Your task to perform on an android device: View the shopping cart on bestbuy. Search for "razer blackwidow" on bestbuy, select the first entry, add it to the cart, then select checkout. Image 0: 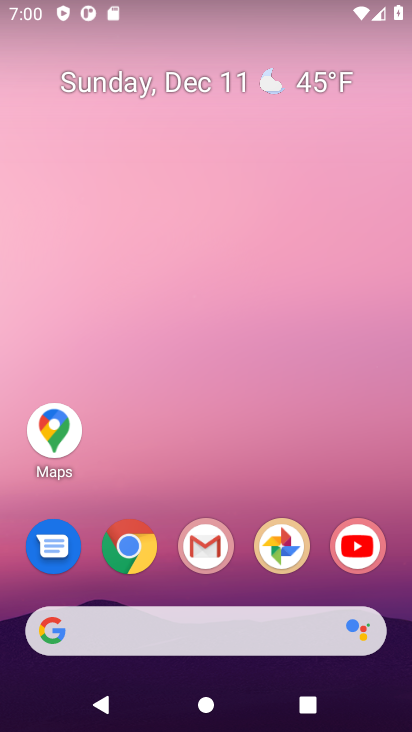
Step 0: click (132, 551)
Your task to perform on an android device: View the shopping cart on bestbuy. Search for "razer blackwidow" on bestbuy, select the first entry, add it to the cart, then select checkout. Image 1: 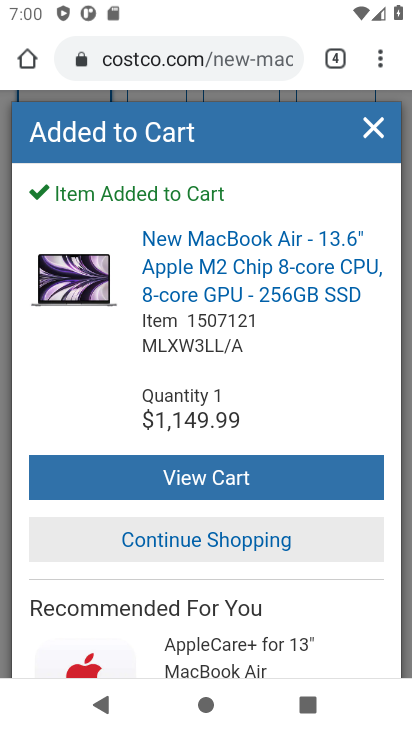
Step 1: click (174, 62)
Your task to perform on an android device: View the shopping cart on bestbuy. Search for "razer blackwidow" on bestbuy, select the first entry, add it to the cart, then select checkout. Image 2: 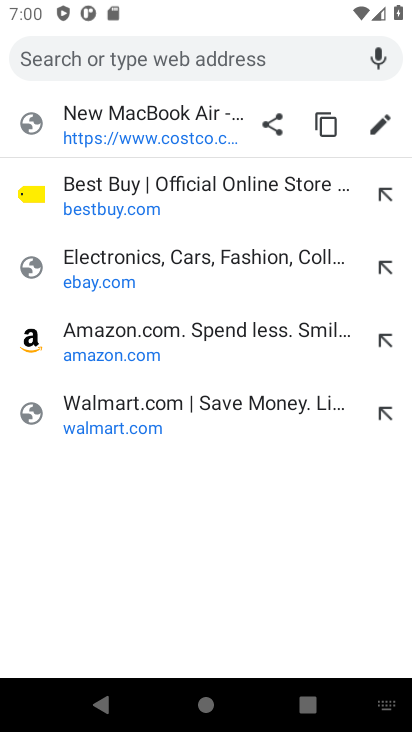
Step 2: click (90, 202)
Your task to perform on an android device: View the shopping cart on bestbuy. Search for "razer blackwidow" on bestbuy, select the first entry, add it to the cart, then select checkout. Image 3: 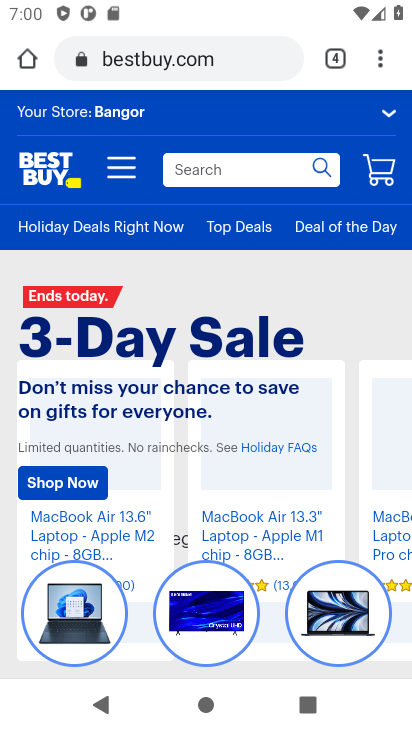
Step 3: click (373, 178)
Your task to perform on an android device: View the shopping cart on bestbuy. Search for "razer blackwidow" on bestbuy, select the first entry, add it to the cart, then select checkout. Image 4: 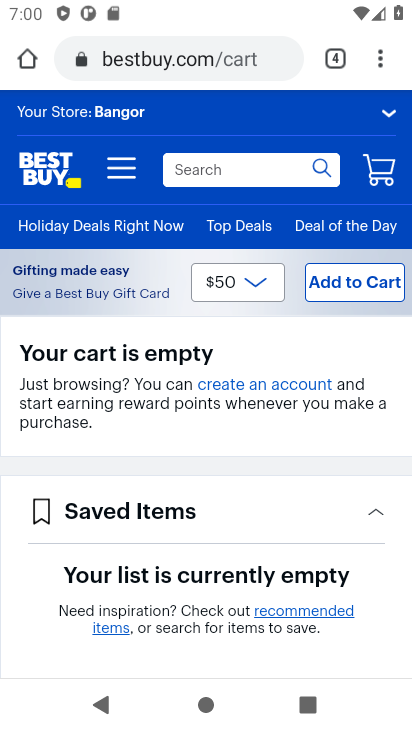
Step 4: click (205, 171)
Your task to perform on an android device: View the shopping cart on bestbuy. Search for "razer blackwidow" on bestbuy, select the first entry, add it to the cart, then select checkout. Image 5: 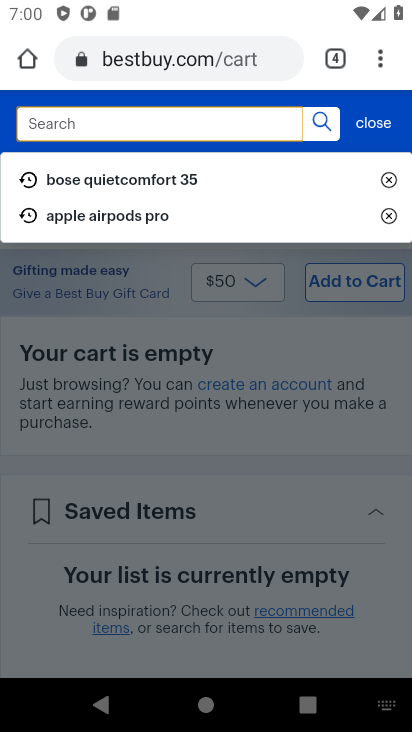
Step 5: type "razer blackwidow"
Your task to perform on an android device: View the shopping cart on bestbuy. Search for "razer blackwidow" on bestbuy, select the first entry, add it to the cart, then select checkout. Image 6: 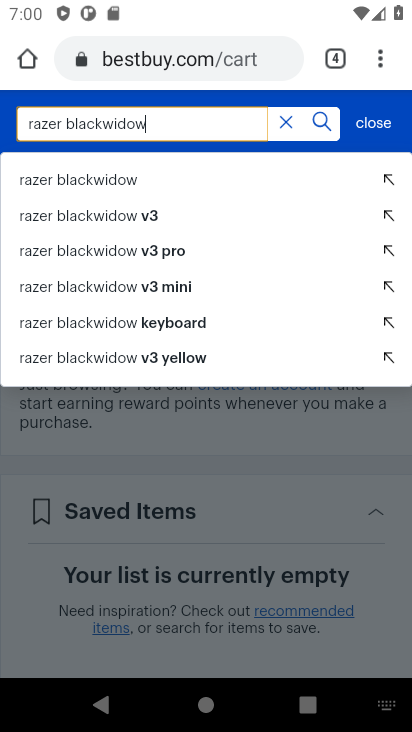
Step 6: click (87, 181)
Your task to perform on an android device: View the shopping cart on bestbuy. Search for "razer blackwidow" on bestbuy, select the first entry, add it to the cart, then select checkout. Image 7: 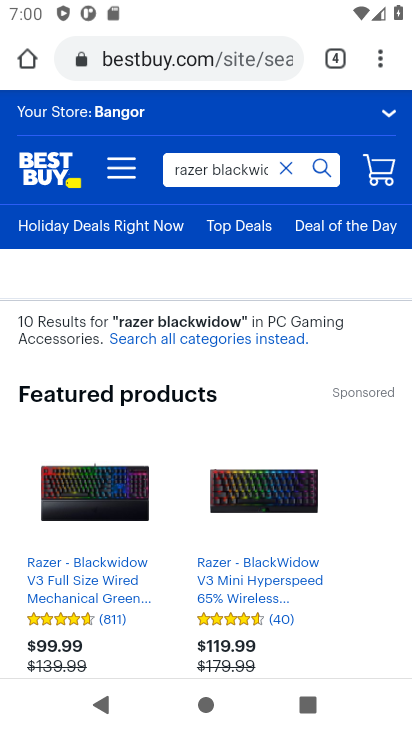
Step 7: drag from (353, 534) to (356, 201)
Your task to perform on an android device: View the shopping cart on bestbuy. Search for "razer blackwidow" on bestbuy, select the first entry, add it to the cart, then select checkout. Image 8: 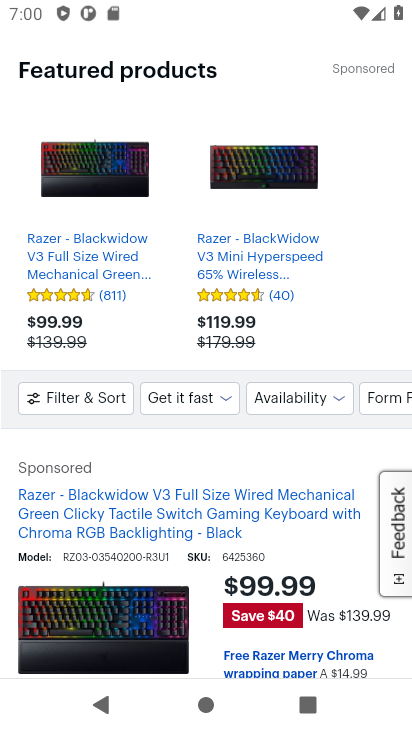
Step 8: drag from (330, 525) to (314, 210)
Your task to perform on an android device: View the shopping cart on bestbuy. Search for "razer blackwidow" on bestbuy, select the first entry, add it to the cart, then select checkout. Image 9: 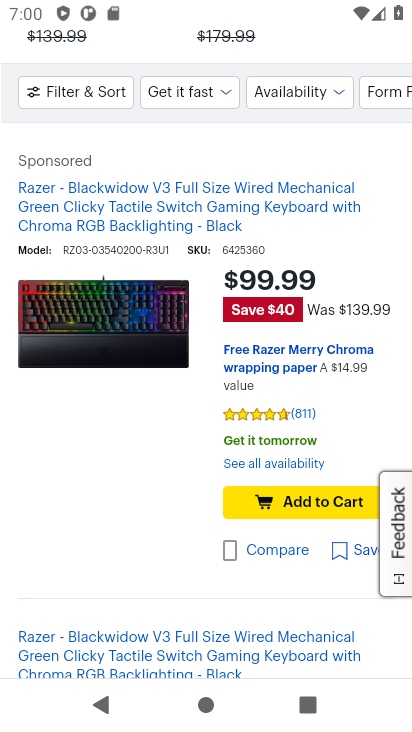
Step 9: click (304, 497)
Your task to perform on an android device: View the shopping cart on bestbuy. Search for "razer blackwidow" on bestbuy, select the first entry, add it to the cart, then select checkout. Image 10: 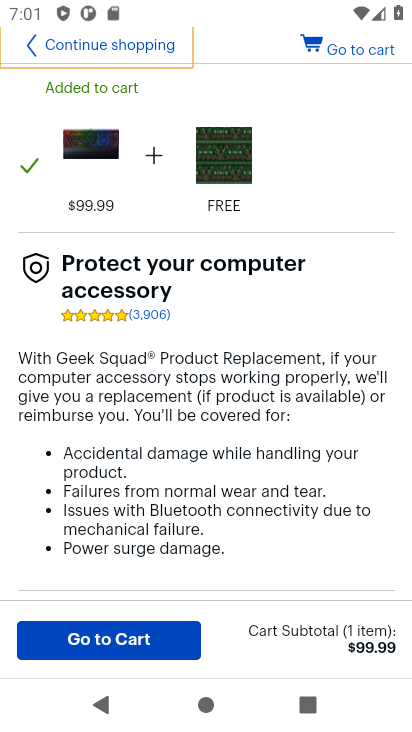
Step 10: click (351, 54)
Your task to perform on an android device: View the shopping cart on bestbuy. Search for "razer blackwidow" on bestbuy, select the first entry, add it to the cart, then select checkout. Image 11: 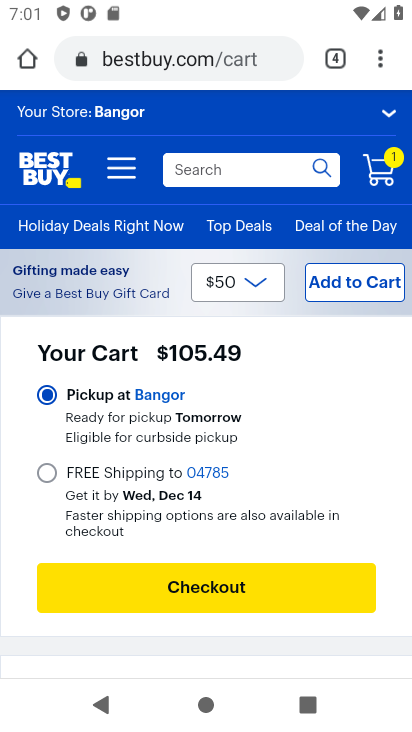
Step 11: click (179, 578)
Your task to perform on an android device: View the shopping cart on bestbuy. Search for "razer blackwidow" on bestbuy, select the first entry, add it to the cart, then select checkout. Image 12: 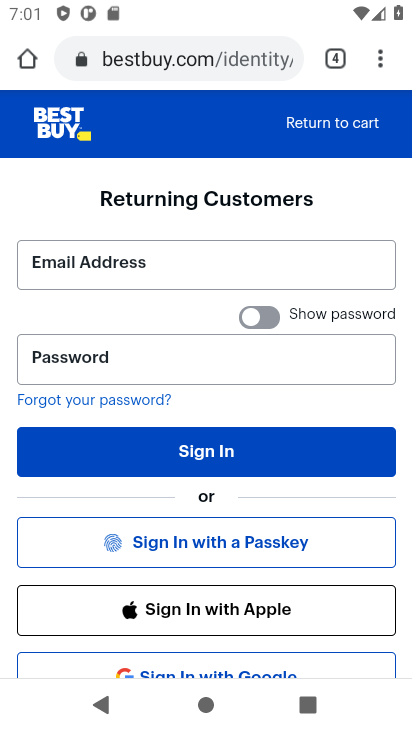
Step 12: task complete